Your task to perform on an android device: Open the map Image 0: 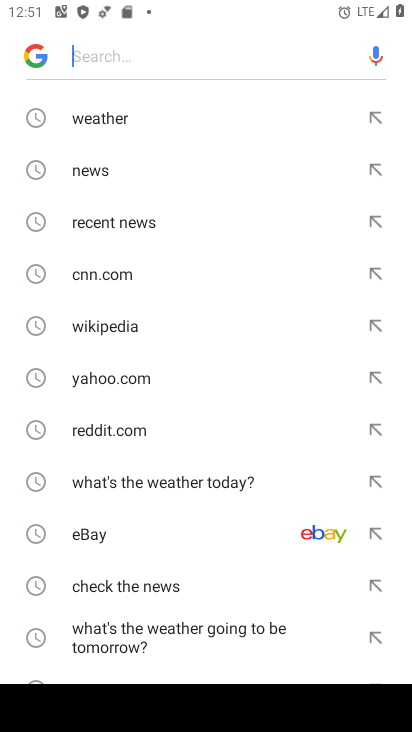
Step 0: press back button
Your task to perform on an android device: Open the map Image 1: 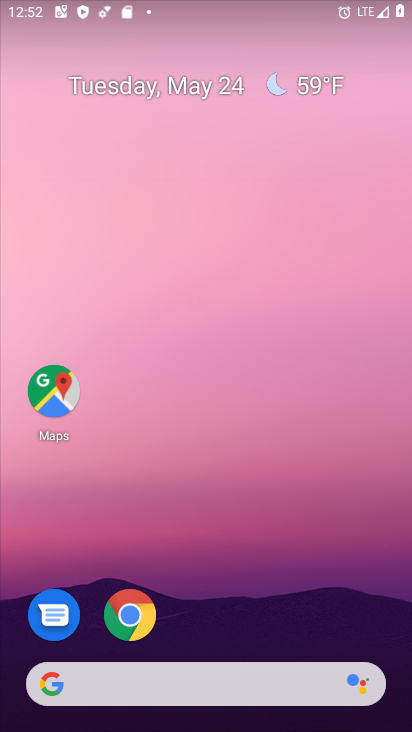
Step 1: click (52, 391)
Your task to perform on an android device: Open the map Image 2: 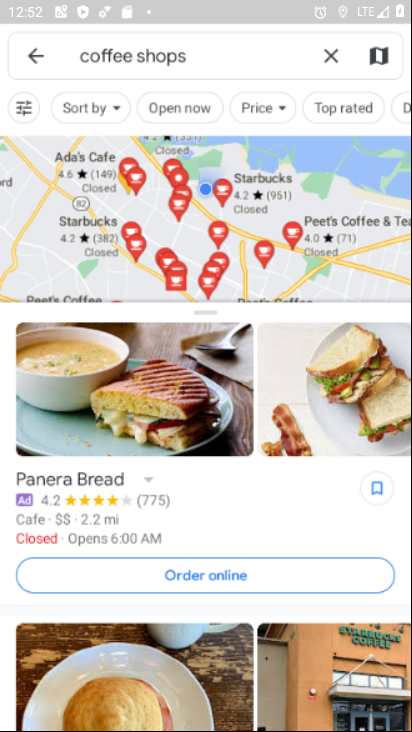
Step 2: click (39, 50)
Your task to perform on an android device: Open the map Image 3: 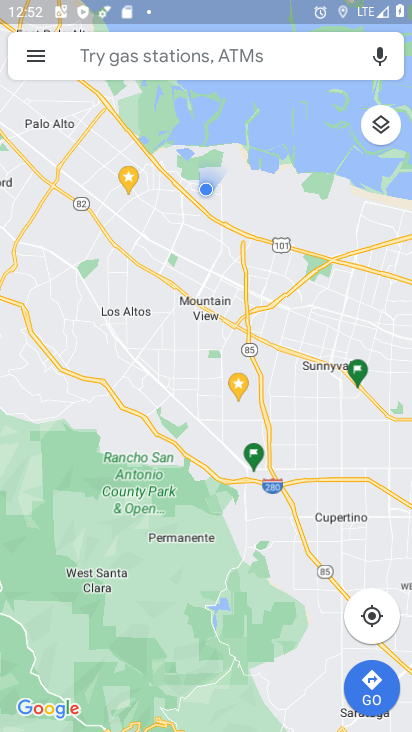
Step 3: task complete